Your task to perform on an android device: change the clock display to digital Image 0: 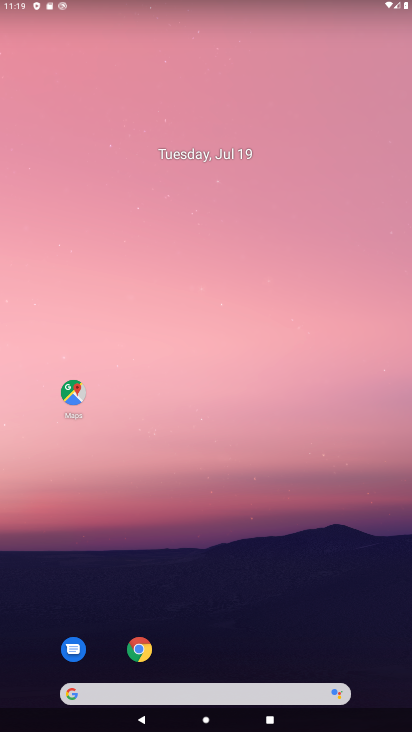
Step 0: drag from (284, 634) to (290, 128)
Your task to perform on an android device: change the clock display to digital Image 1: 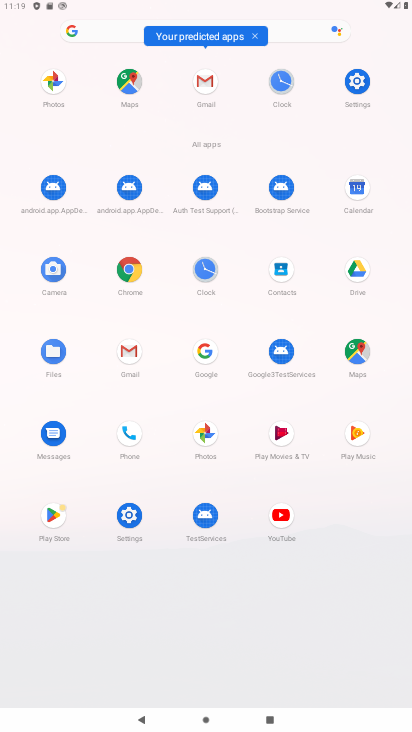
Step 1: click (279, 78)
Your task to perform on an android device: change the clock display to digital Image 2: 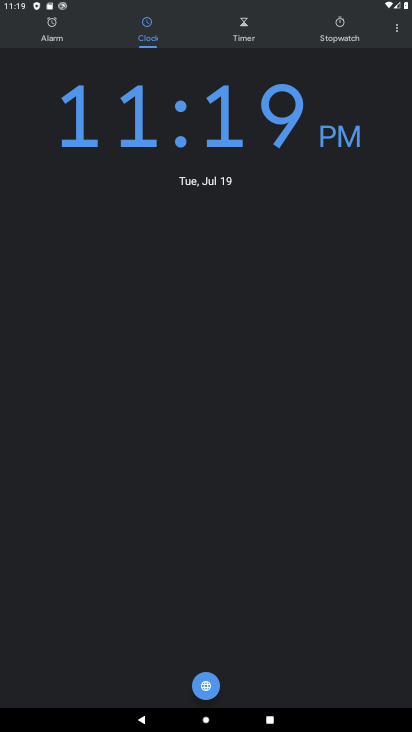
Step 2: click (393, 35)
Your task to perform on an android device: change the clock display to digital Image 3: 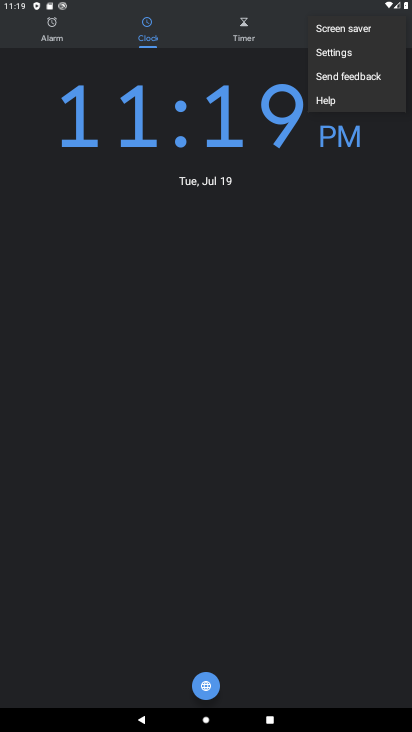
Step 3: click (359, 57)
Your task to perform on an android device: change the clock display to digital Image 4: 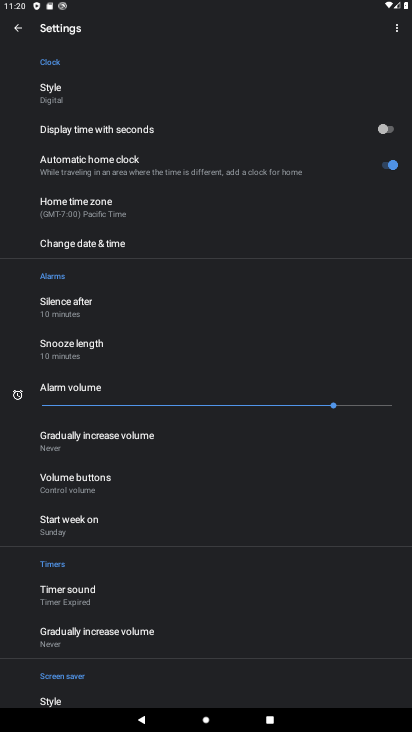
Step 4: click (193, 93)
Your task to perform on an android device: change the clock display to digital Image 5: 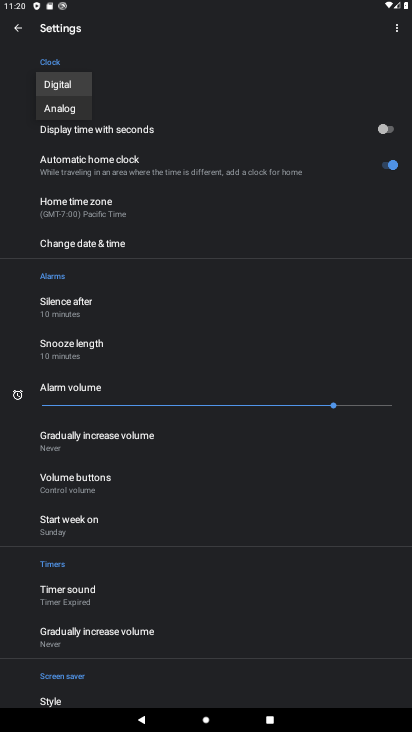
Step 5: task complete